Your task to perform on an android device: turn on translation in the chrome app Image 0: 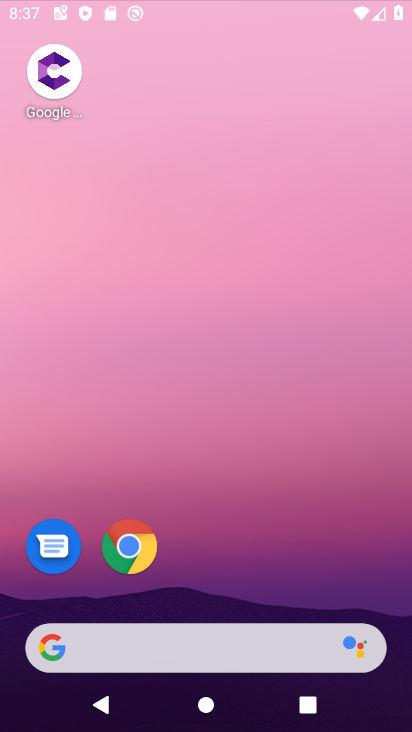
Step 0: drag from (387, 601) to (402, 18)
Your task to perform on an android device: turn on translation in the chrome app Image 1: 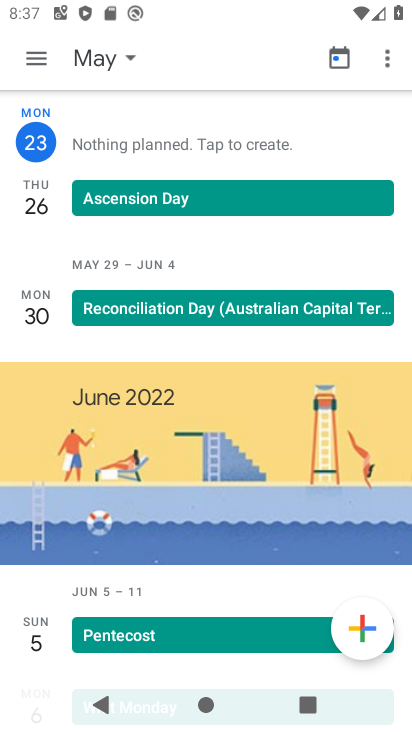
Step 1: press home button
Your task to perform on an android device: turn on translation in the chrome app Image 2: 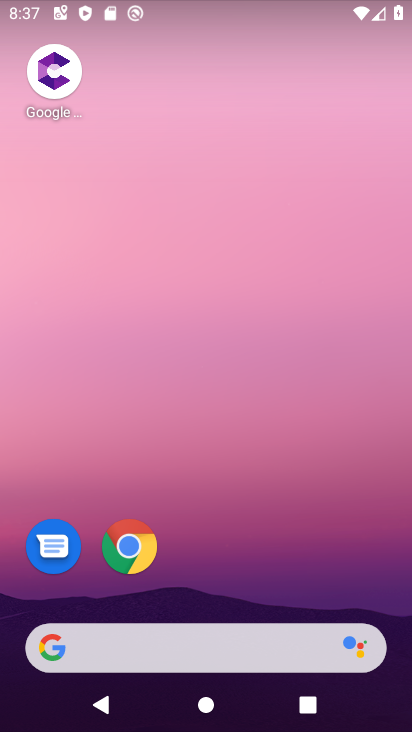
Step 2: click (124, 543)
Your task to perform on an android device: turn on translation in the chrome app Image 3: 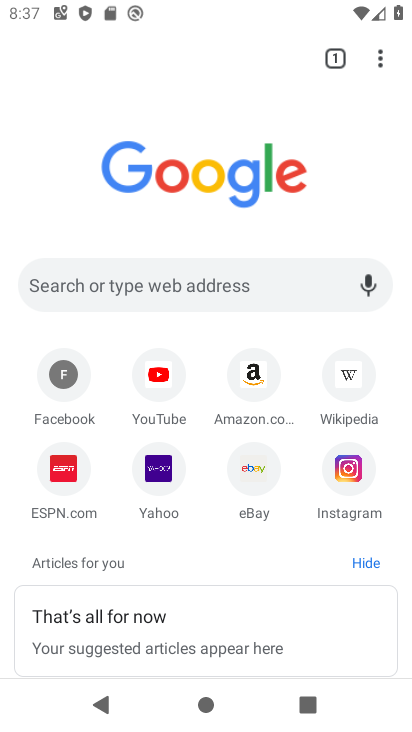
Step 3: click (380, 60)
Your task to perform on an android device: turn on translation in the chrome app Image 4: 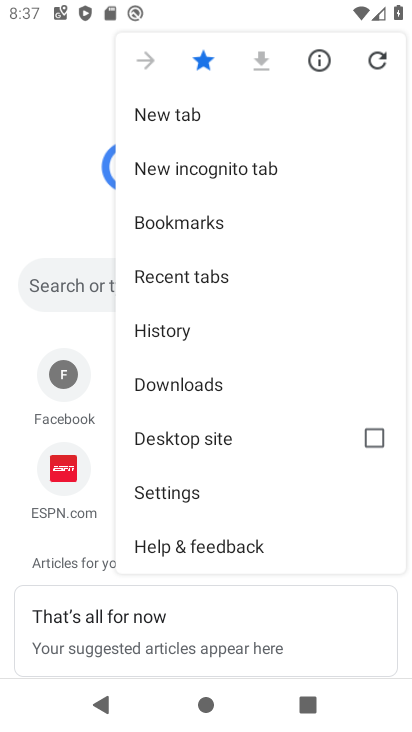
Step 4: click (178, 485)
Your task to perform on an android device: turn on translation in the chrome app Image 5: 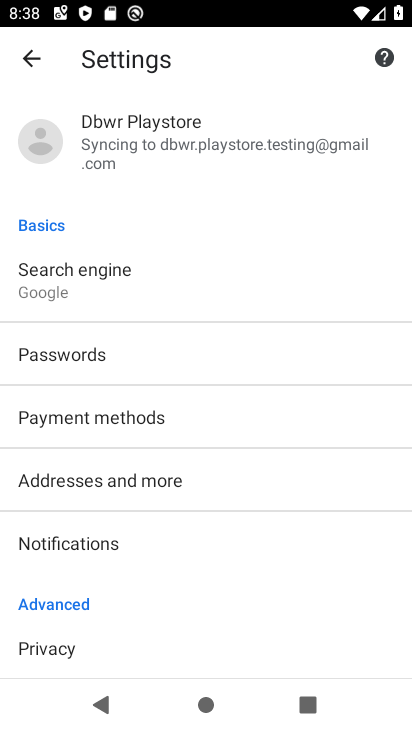
Step 5: drag from (238, 640) to (288, 147)
Your task to perform on an android device: turn on translation in the chrome app Image 6: 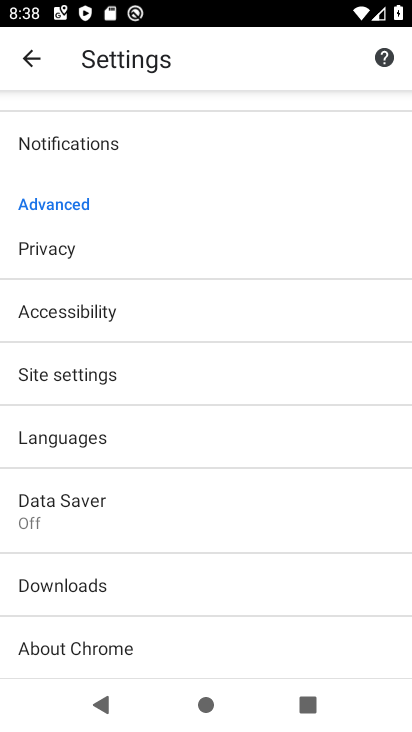
Step 6: click (54, 435)
Your task to perform on an android device: turn on translation in the chrome app Image 7: 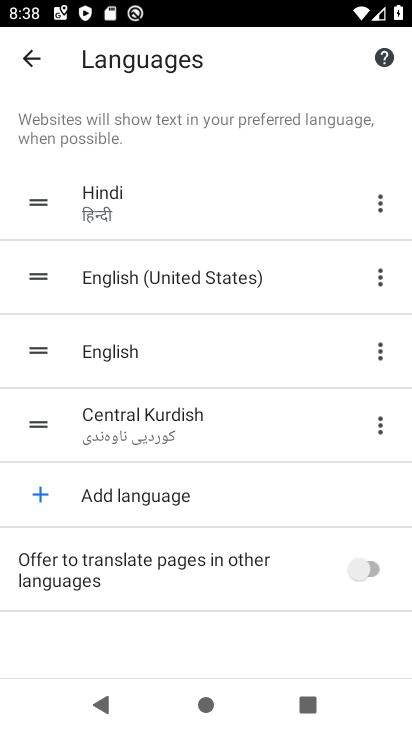
Step 7: click (374, 563)
Your task to perform on an android device: turn on translation in the chrome app Image 8: 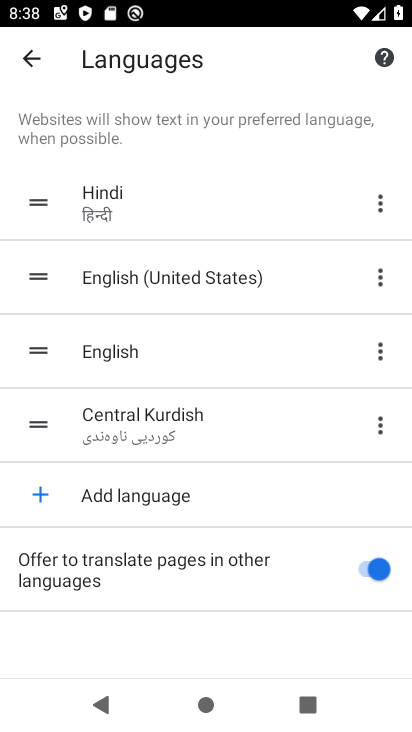
Step 8: task complete